Your task to perform on an android device: Open settings on Google Maps Image 0: 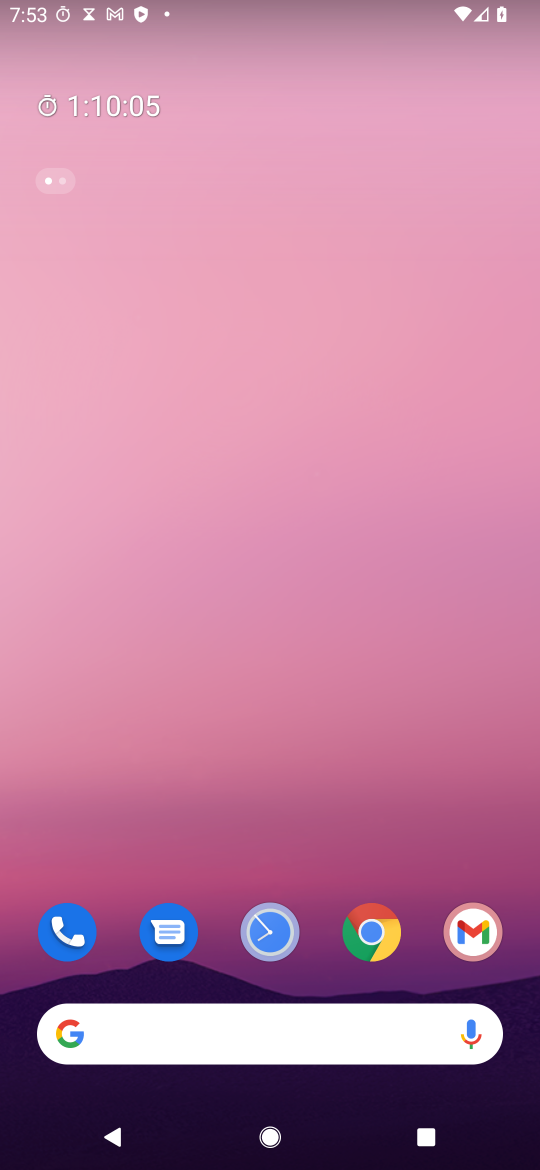
Step 0: drag from (294, 769) to (198, 49)
Your task to perform on an android device: Open settings on Google Maps Image 1: 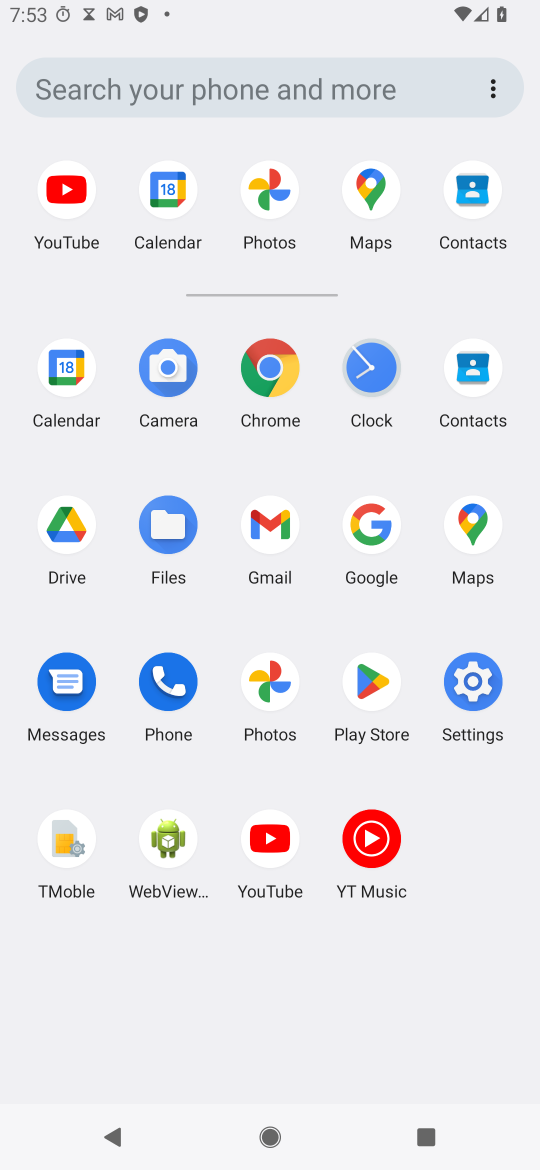
Step 1: click (457, 522)
Your task to perform on an android device: Open settings on Google Maps Image 2: 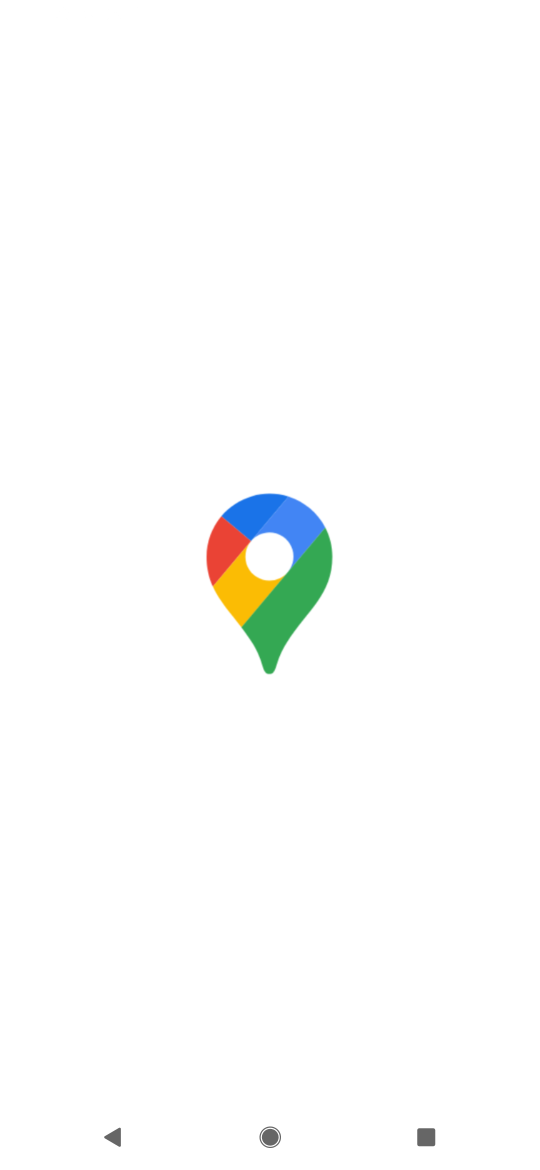
Step 2: task complete